Your task to perform on an android device: find photos in the google photos app Image 0: 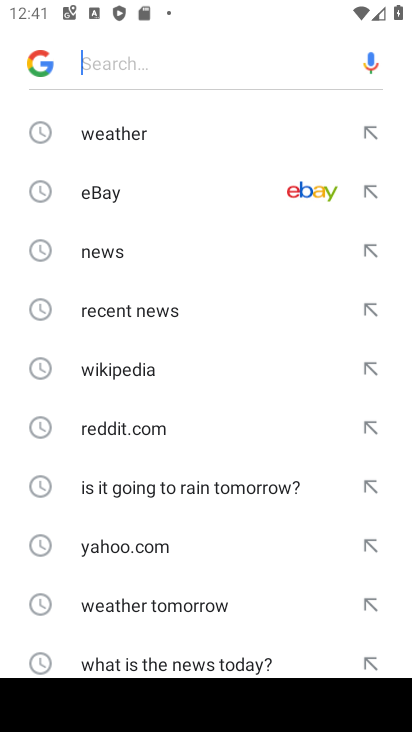
Step 0: press home button
Your task to perform on an android device: find photos in the google photos app Image 1: 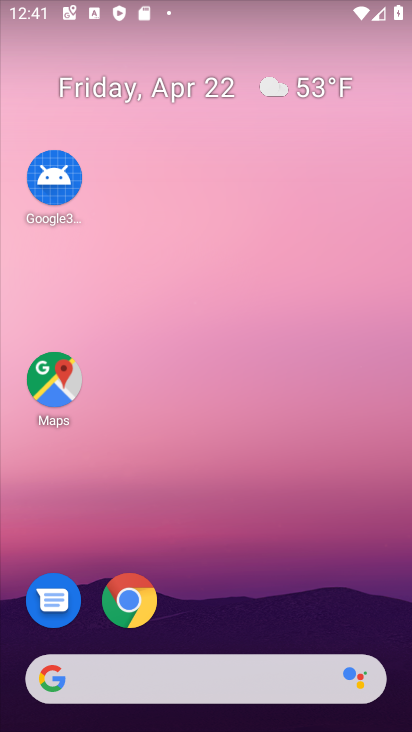
Step 1: drag from (213, 542) to (181, 6)
Your task to perform on an android device: find photos in the google photos app Image 2: 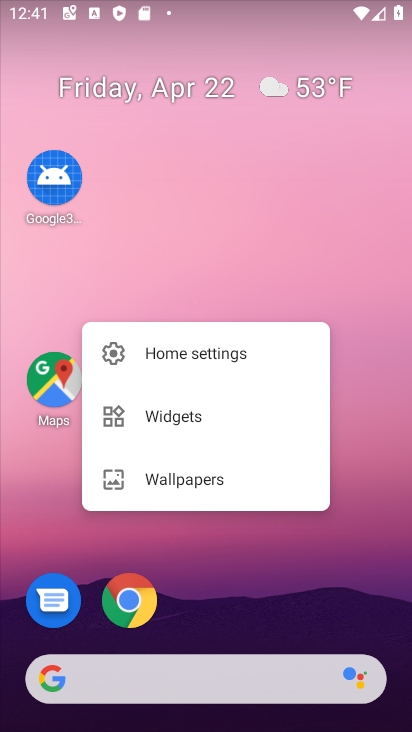
Step 2: drag from (209, 600) to (193, 137)
Your task to perform on an android device: find photos in the google photos app Image 3: 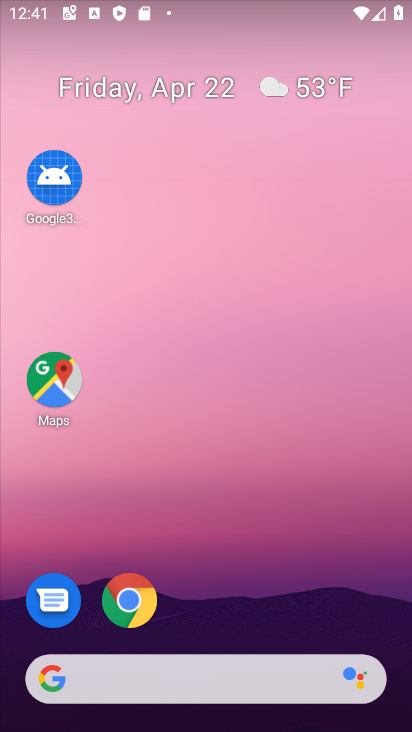
Step 3: drag from (234, 559) to (246, 33)
Your task to perform on an android device: find photos in the google photos app Image 4: 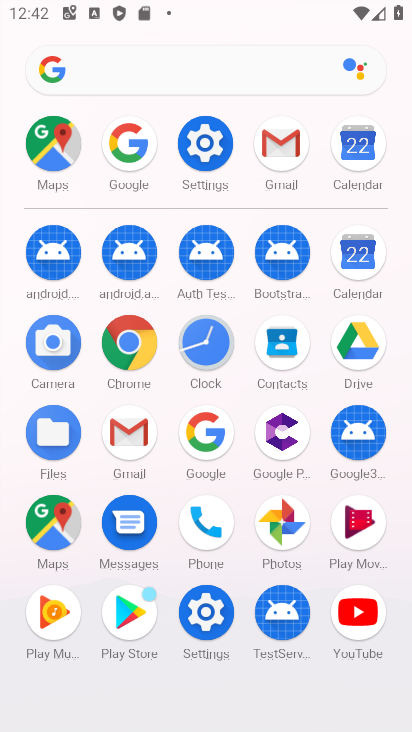
Step 4: click (280, 508)
Your task to perform on an android device: find photos in the google photos app Image 5: 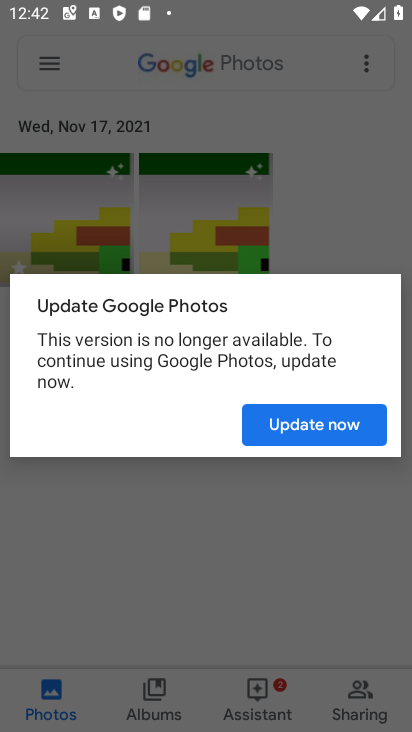
Step 5: click (324, 421)
Your task to perform on an android device: find photos in the google photos app Image 6: 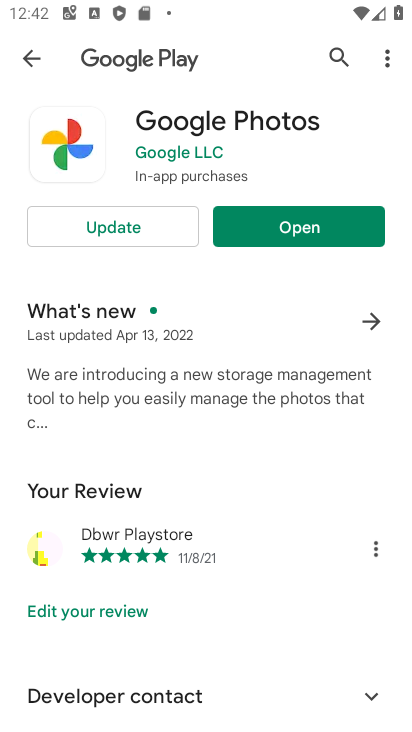
Step 6: click (139, 228)
Your task to perform on an android device: find photos in the google photos app Image 7: 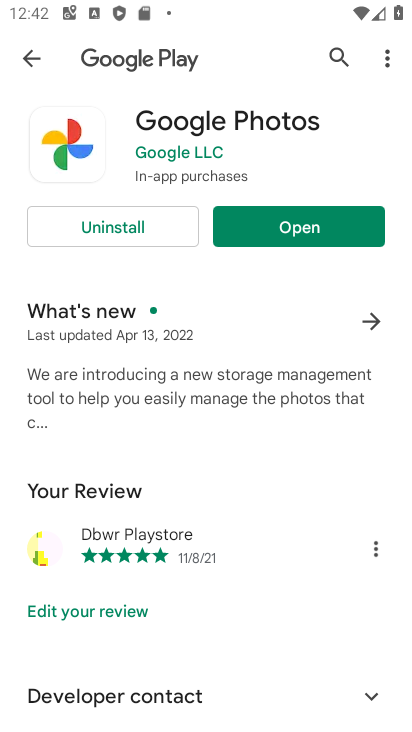
Step 7: click (359, 229)
Your task to perform on an android device: find photos in the google photos app Image 8: 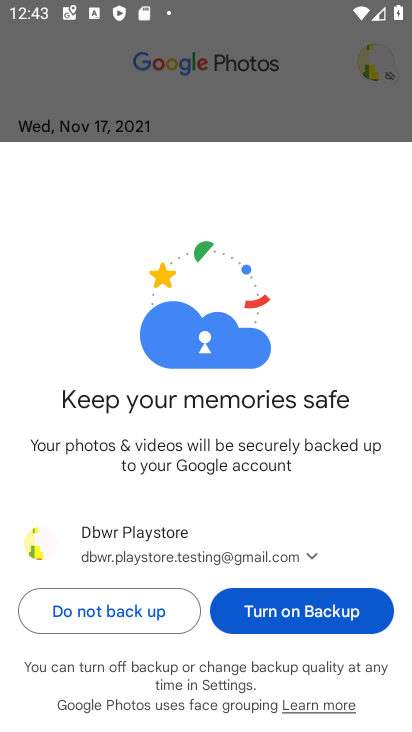
Step 8: click (325, 122)
Your task to perform on an android device: find photos in the google photos app Image 9: 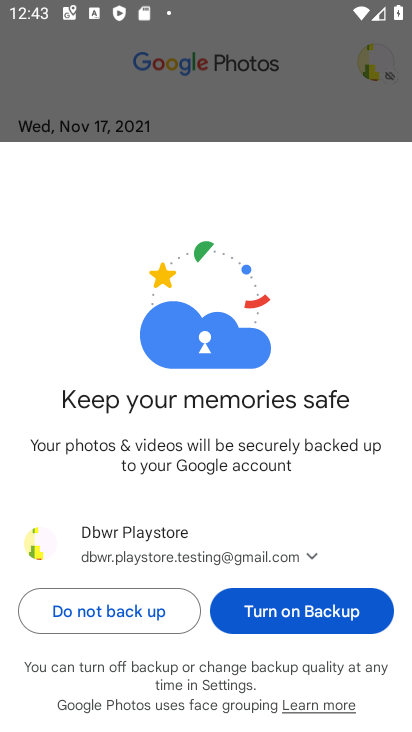
Step 9: click (298, 112)
Your task to perform on an android device: find photos in the google photos app Image 10: 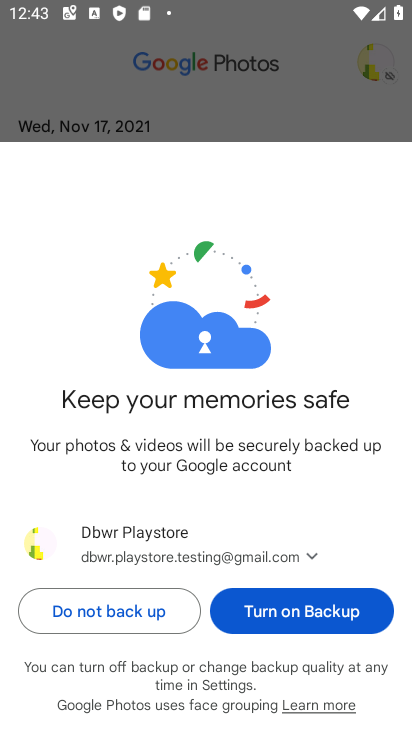
Step 10: click (248, 613)
Your task to perform on an android device: find photos in the google photos app Image 11: 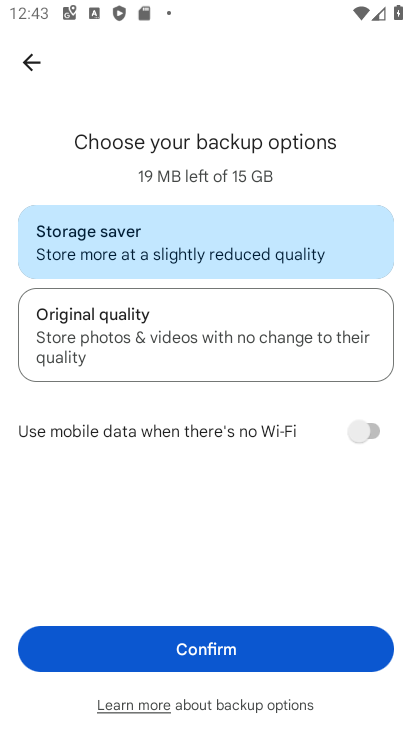
Step 11: click (270, 641)
Your task to perform on an android device: find photos in the google photos app Image 12: 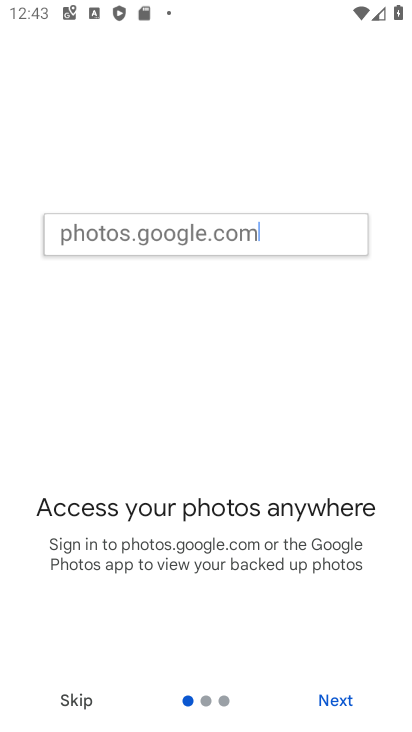
Step 12: click (336, 706)
Your task to perform on an android device: find photos in the google photos app Image 13: 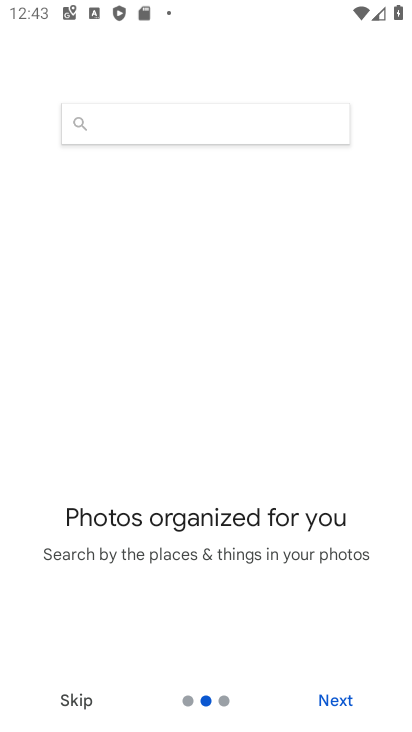
Step 13: click (336, 706)
Your task to perform on an android device: find photos in the google photos app Image 14: 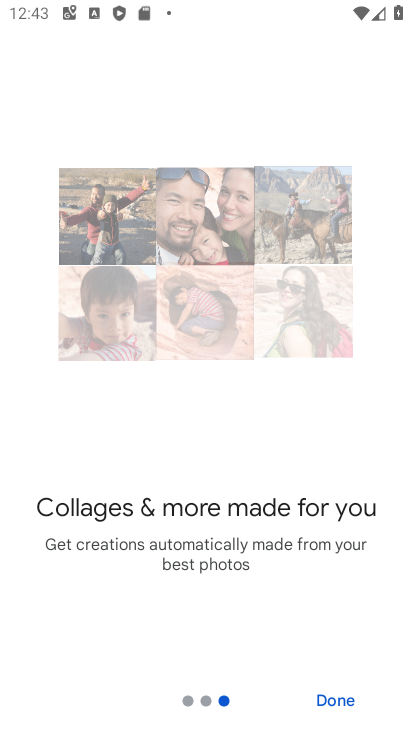
Step 14: click (336, 706)
Your task to perform on an android device: find photos in the google photos app Image 15: 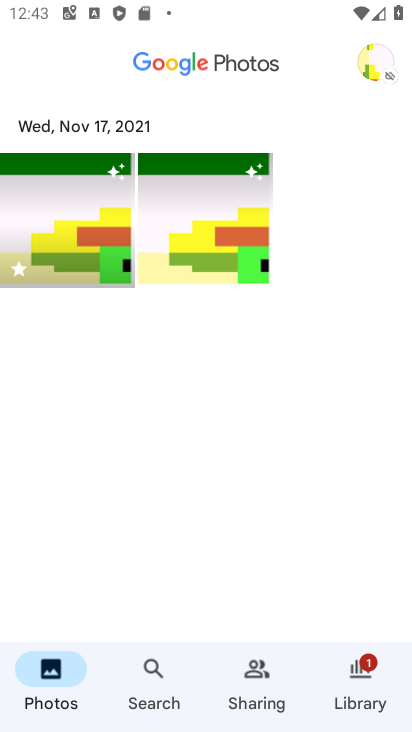
Step 15: click (336, 706)
Your task to perform on an android device: find photos in the google photos app Image 16: 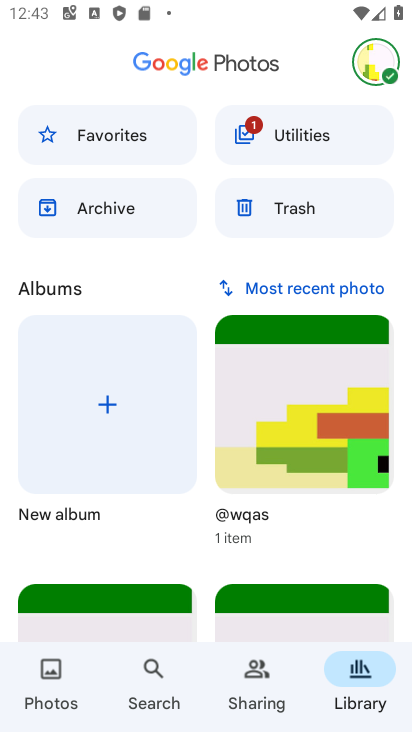
Step 16: click (49, 666)
Your task to perform on an android device: find photos in the google photos app Image 17: 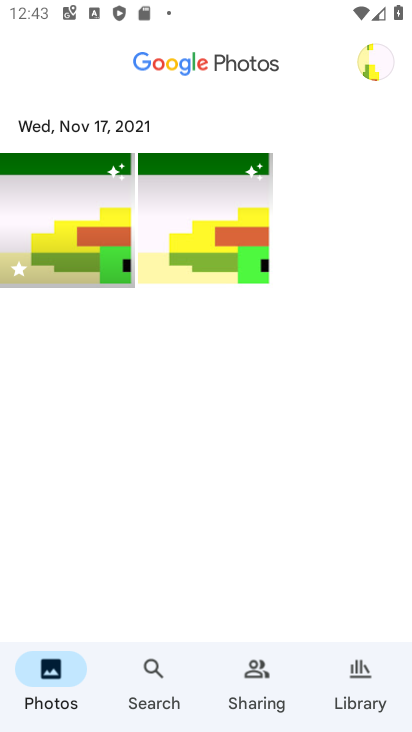
Step 17: task complete